Your task to perform on an android device: turn on location history Image 0: 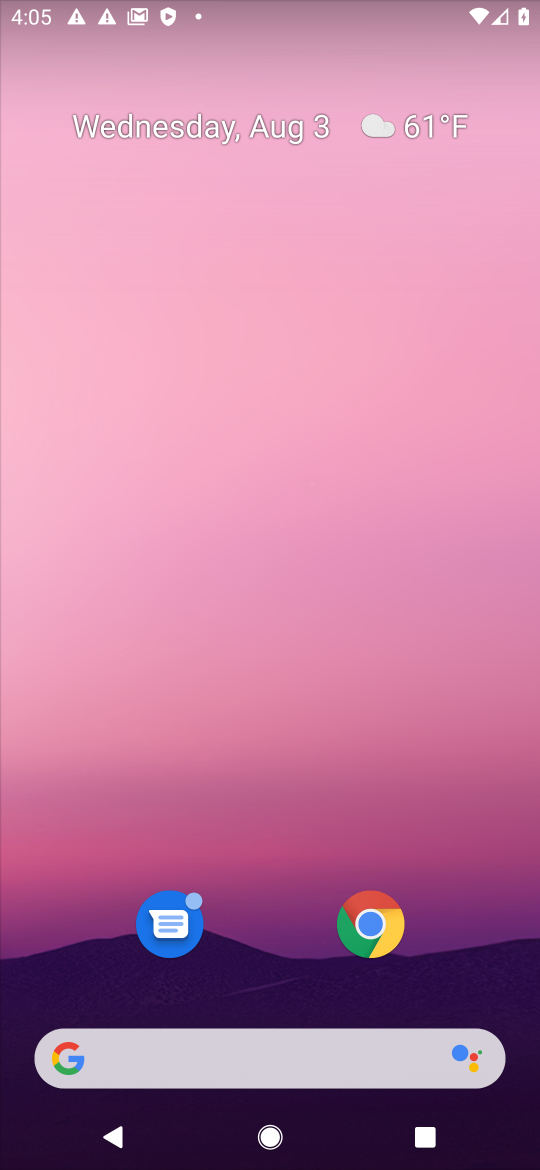
Step 0: drag from (252, 980) to (251, 391)
Your task to perform on an android device: turn on location history Image 1: 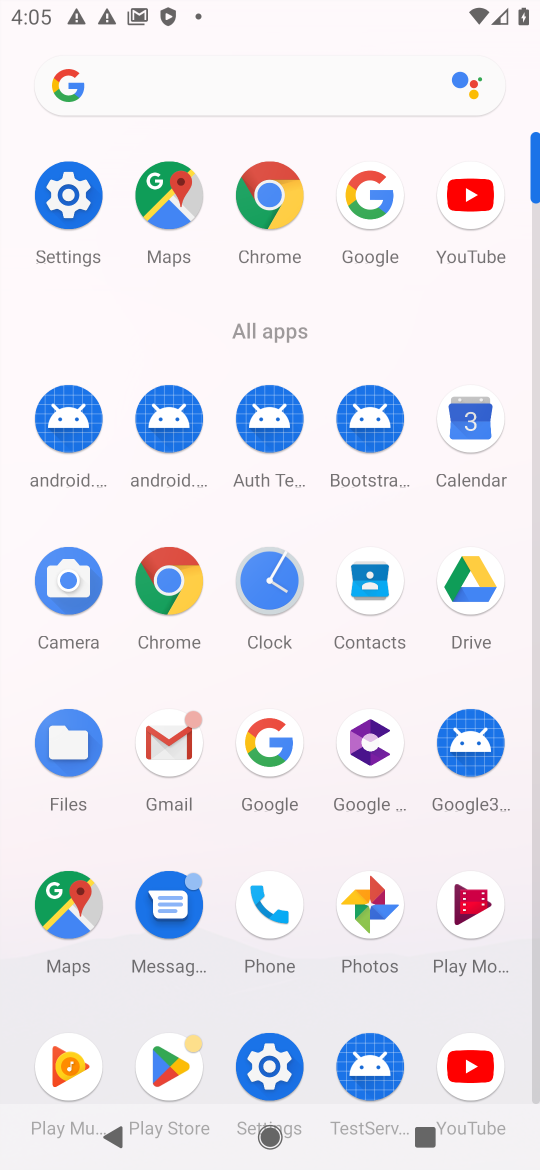
Step 1: click (58, 218)
Your task to perform on an android device: turn on location history Image 2: 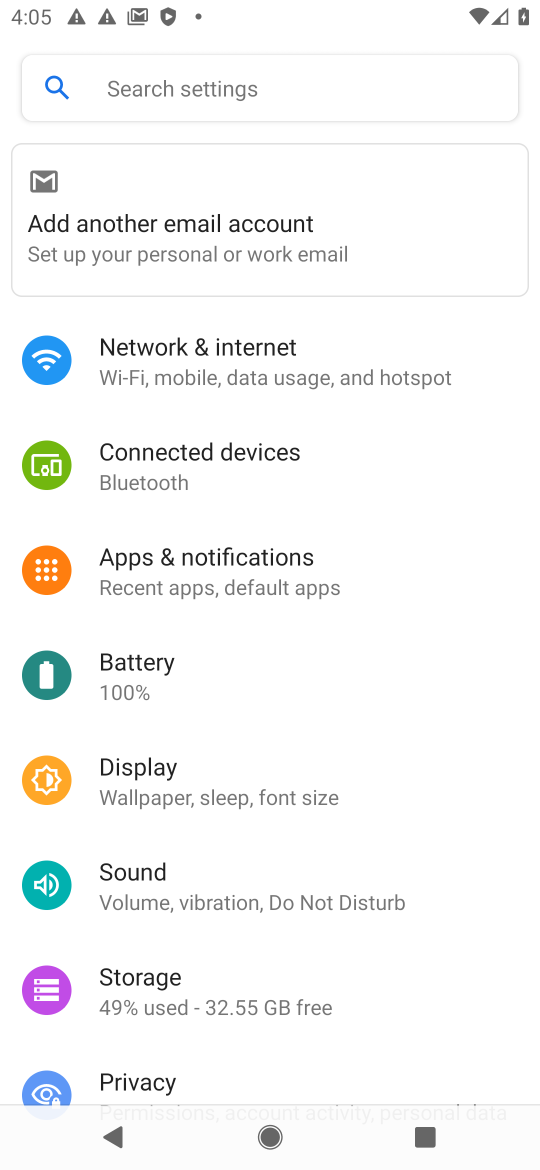
Step 2: drag from (292, 1035) to (350, 510)
Your task to perform on an android device: turn on location history Image 3: 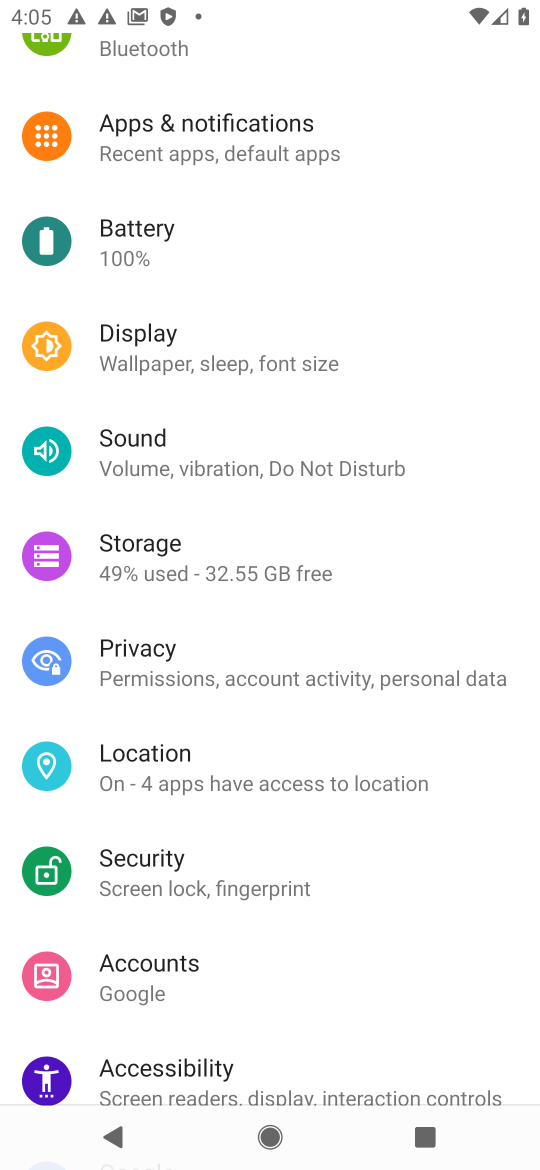
Step 3: click (234, 774)
Your task to perform on an android device: turn on location history Image 4: 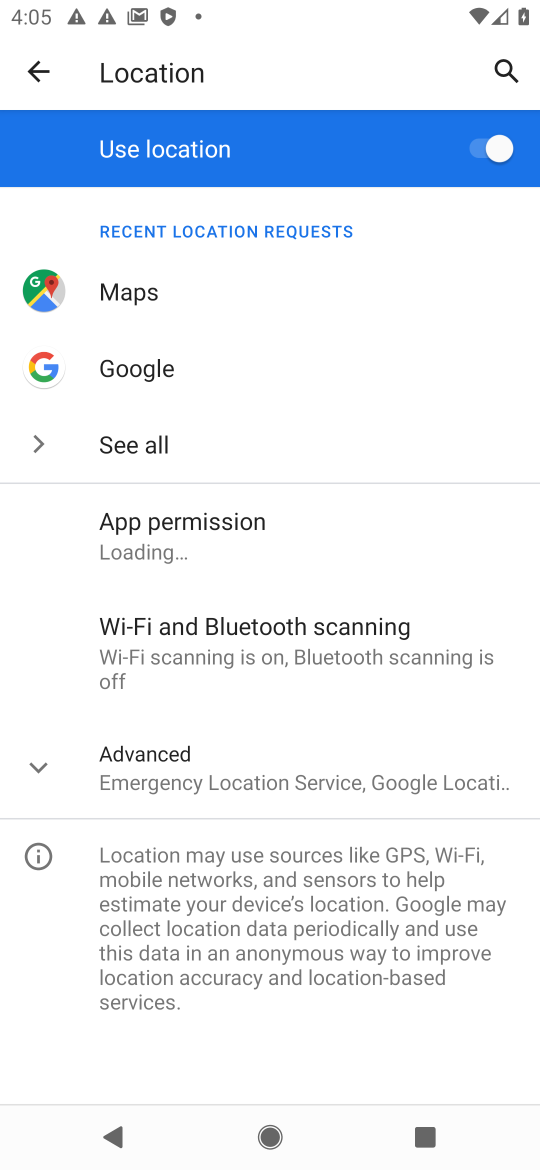
Step 4: click (234, 774)
Your task to perform on an android device: turn on location history Image 5: 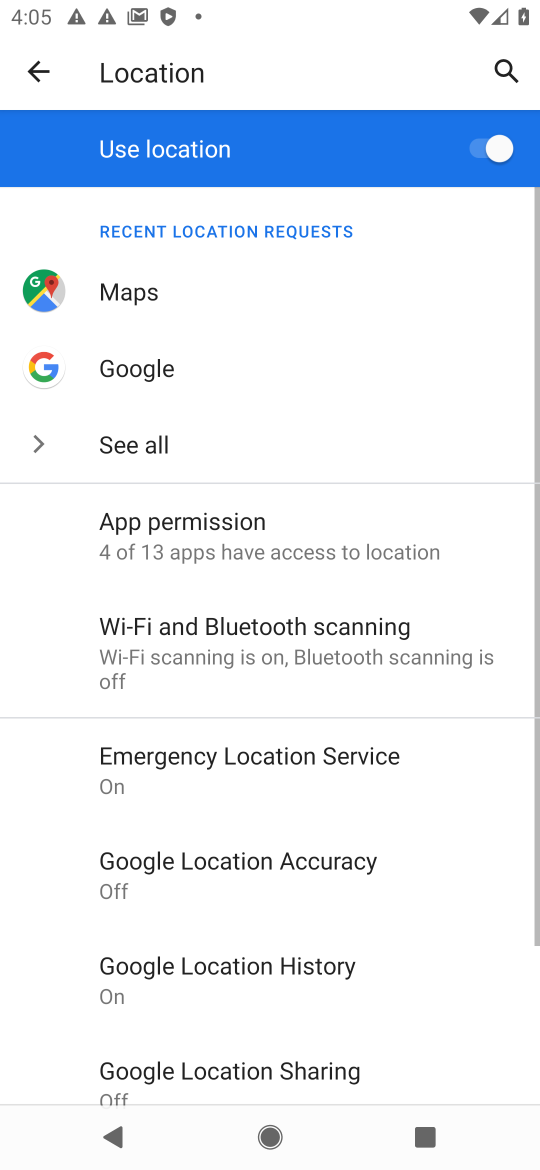
Step 5: click (328, 969)
Your task to perform on an android device: turn on location history Image 6: 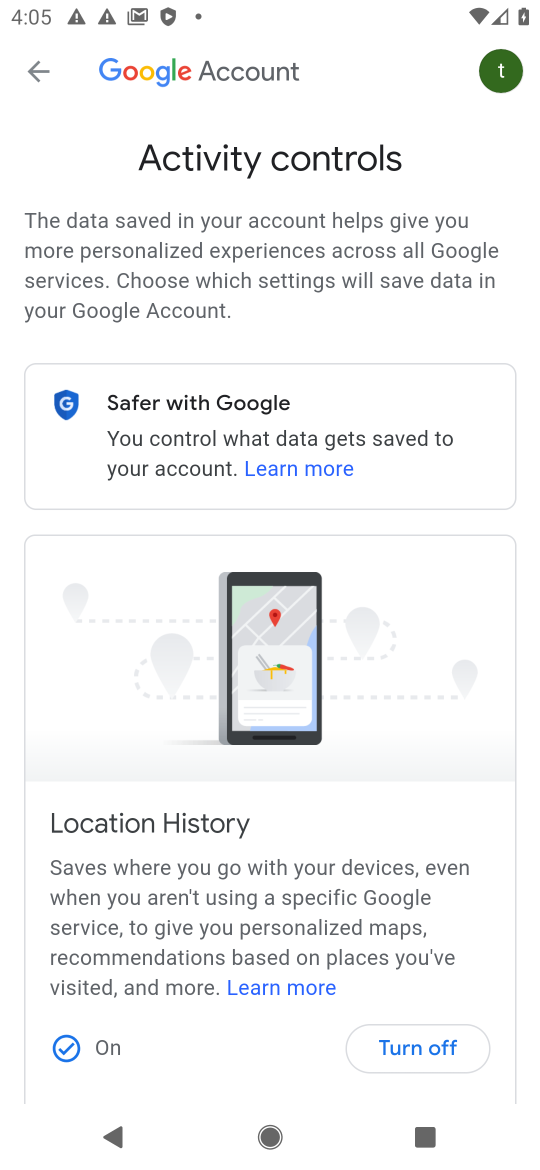
Step 6: task complete